Your task to perform on an android device: Open Google Chrome and open the bookmarks view Image 0: 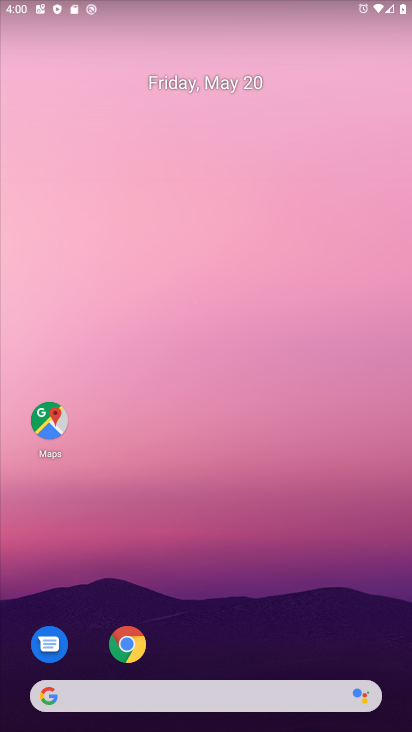
Step 0: click (131, 636)
Your task to perform on an android device: Open Google Chrome and open the bookmarks view Image 1: 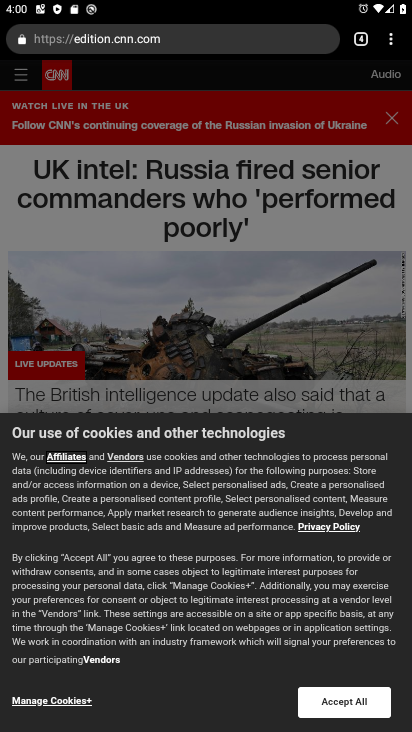
Step 1: click (401, 29)
Your task to perform on an android device: Open Google Chrome and open the bookmarks view Image 2: 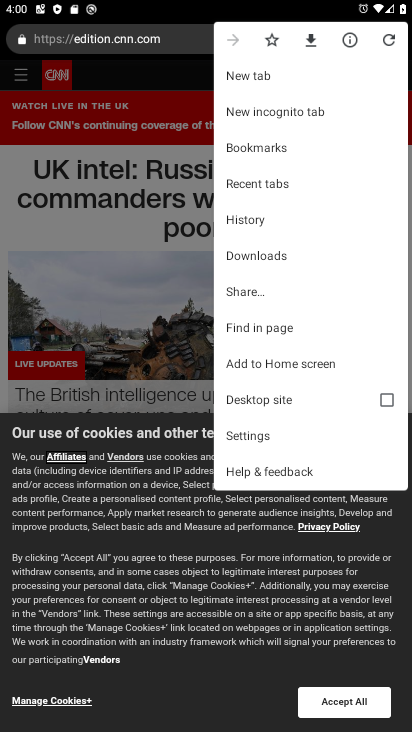
Step 2: click (303, 135)
Your task to perform on an android device: Open Google Chrome and open the bookmarks view Image 3: 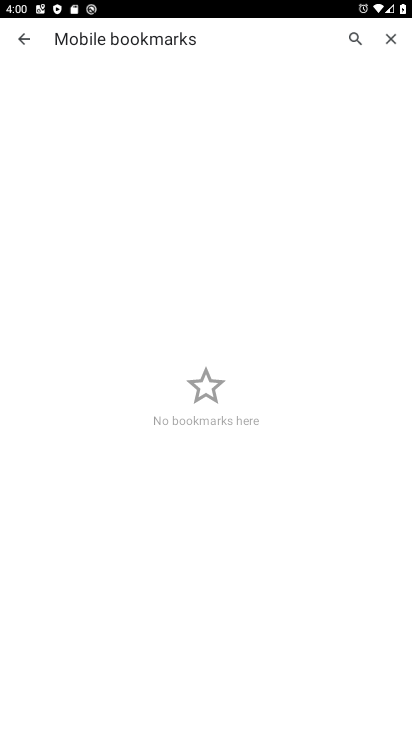
Step 3: task complete